Your task to perform on an android device: Go to display settings Image 0: 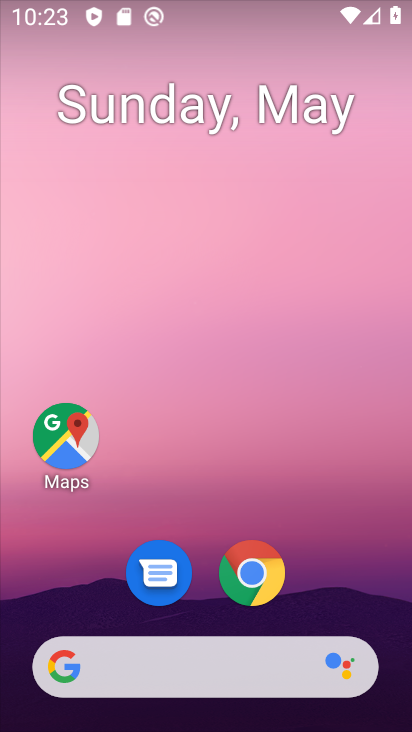
Step 0: drag from (351, 605) to (258, 132)
Your task to perform on an android device: Go to display settings Image 1: 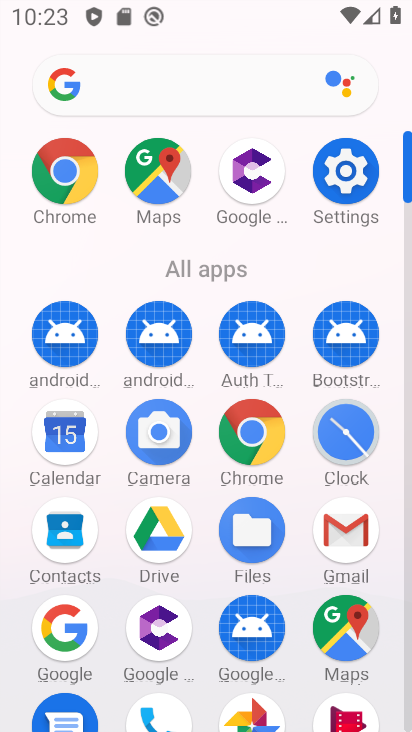
Step 1: click (342, 187)
Your task to perform on an android device: Go to display settings Image 2: 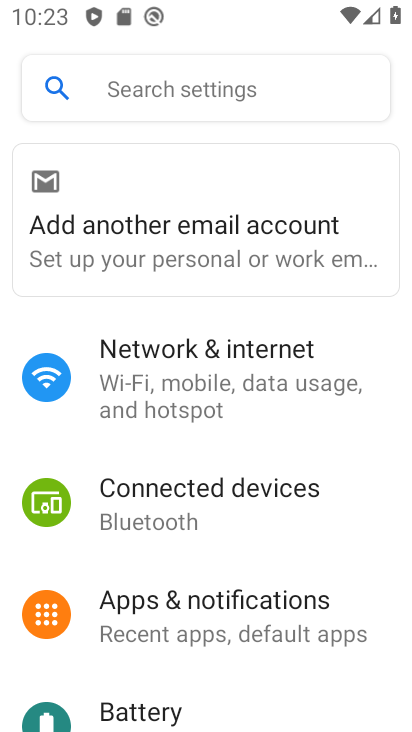
Step 2: drag from (348, 712) to (303, 495)
Your task to perform on an android device: Go to display settings Image 3: 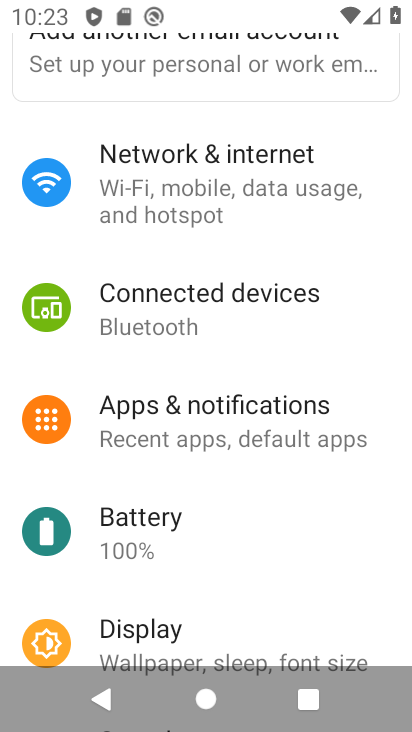
Step 3: click (292, 633)
Your task to perform on an android device: Go to display settings Image 4: 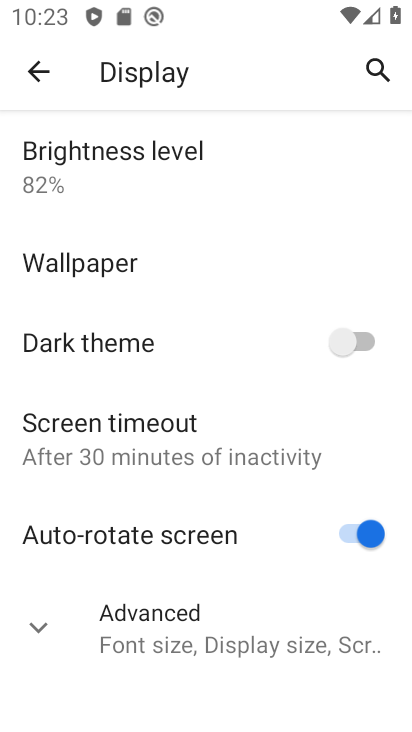
Step 4: task complete